Your task to perform on an android device: turn off wifi Image 0: 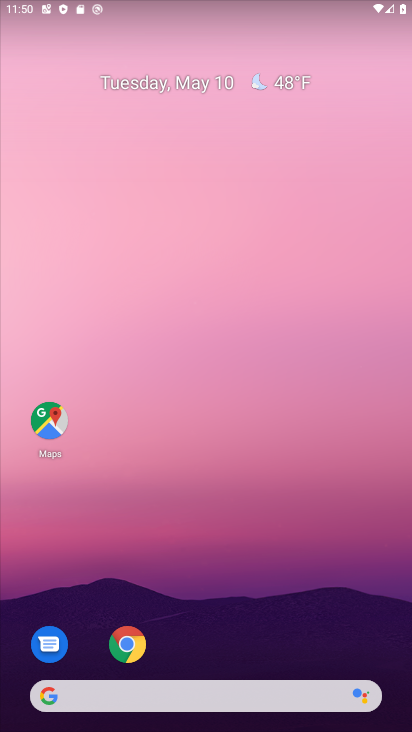
Step 0: drag from (221, 643) to (257, 97)
Your task to perform on an android device: turn off wifi Image 1: 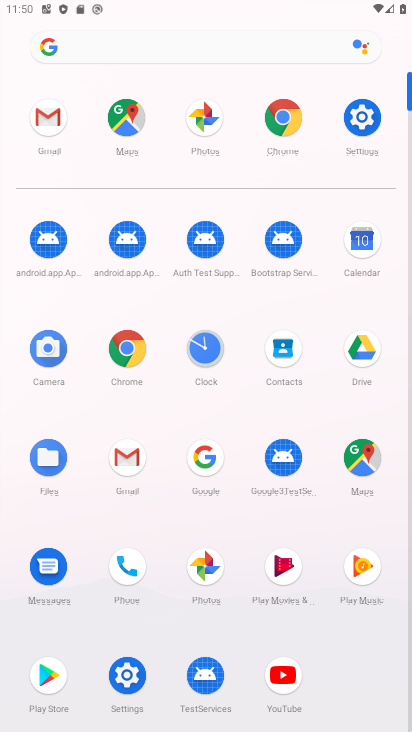
Step 1: click (365, 138)
Your task to perform on an android device: turn off wifi Image 2: 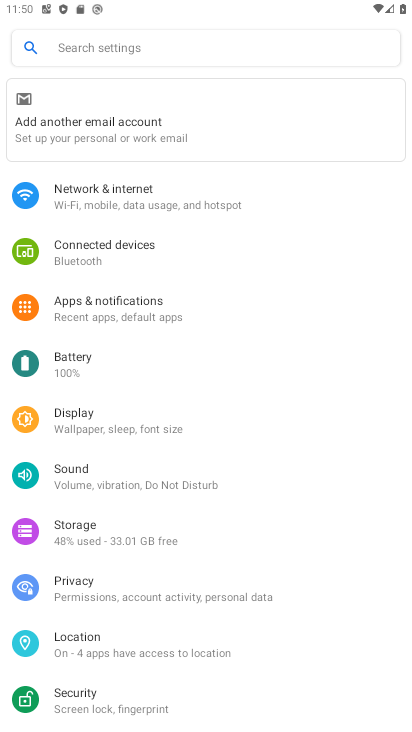
Step 2: click (139, 204)
Your task to perform on an android device: turn off wifi Image 3: 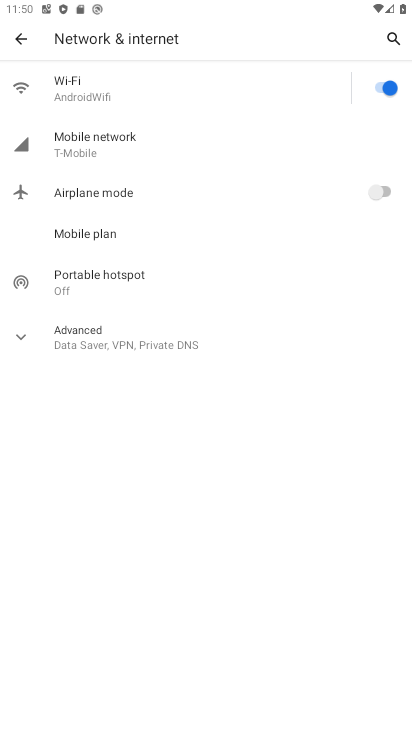
Step 3: click (371, 85)
Your task to perform on an android device: turn off wifi Image 4: 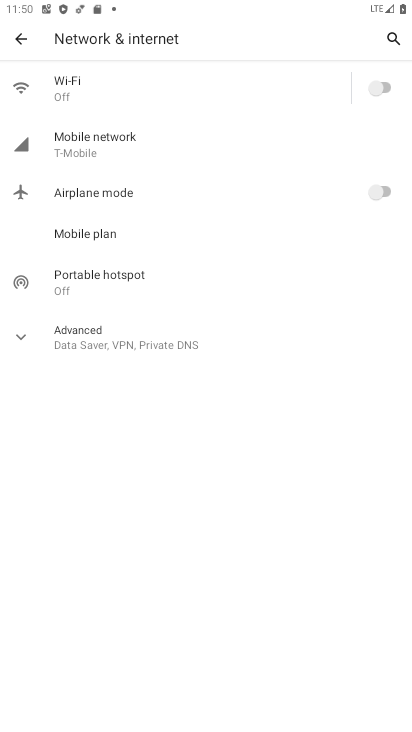
Step 4: task complete